Your task to perform on an android device: choose inbox layout in the gmail app Image 0: 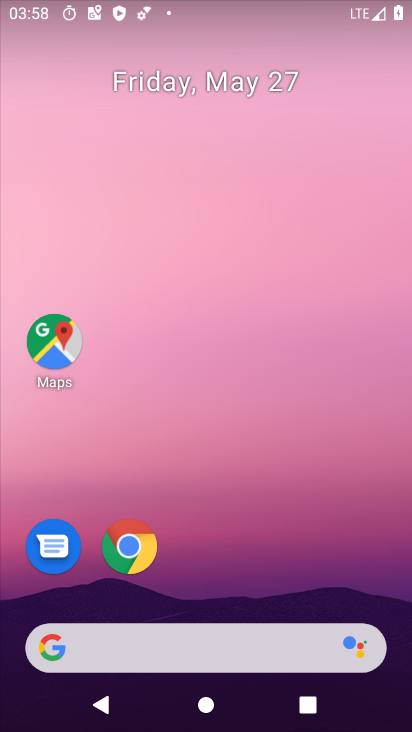
Step 0: drag from (402, 690) to (352, 243)
Your task to perform on an android device: choose inbox layout in the gmail app Image 1: 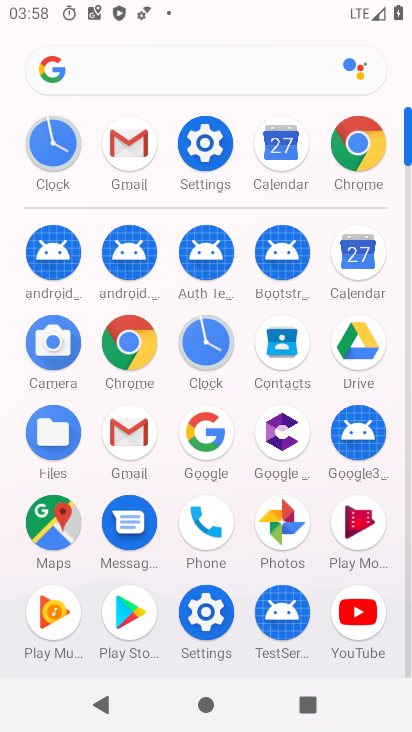
Step 1: click (115, 442)
Your task to perform on an android device: choose inbox layout in the gmail app Image 2: 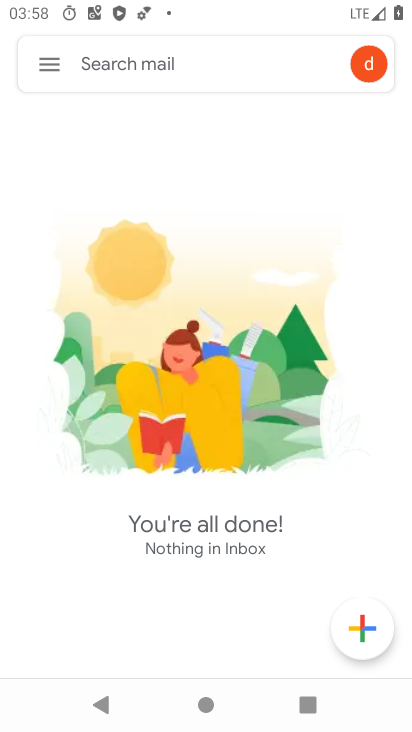
Step 2: click (45, 54)
Your task to perform on an android device: choose inbox layout in the gmail app Image 3: 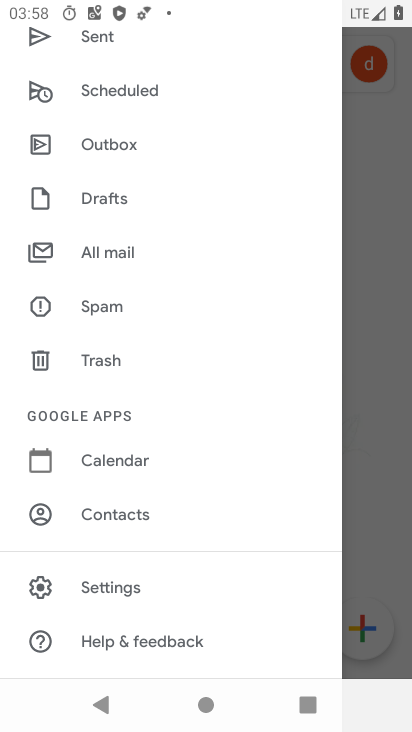
Step 3: click (106, 587)
Your task to perform on an android device: choose inbox layout in the gmail app Image 4: 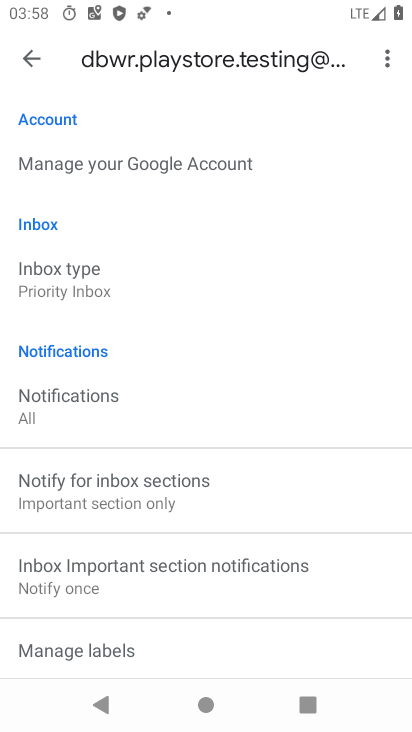
Step 4: click (52, 279)
Your task to perform on an android device: choose inbox layout in the gmail app Image 5: 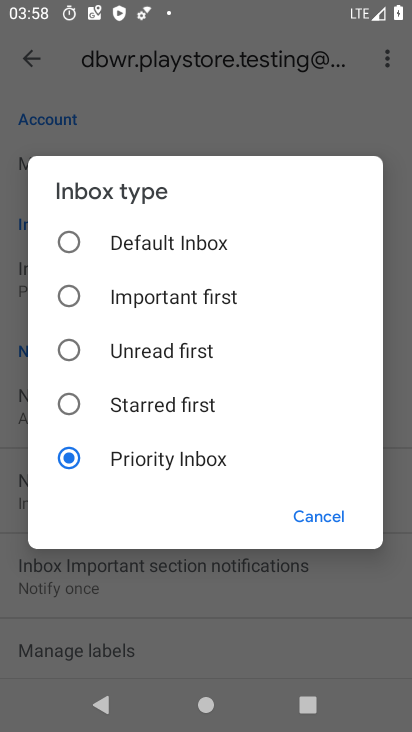
Step 5: click (66, 243)
Your task to perform on an android device: choose inbox layout in the gmail app Image 6: 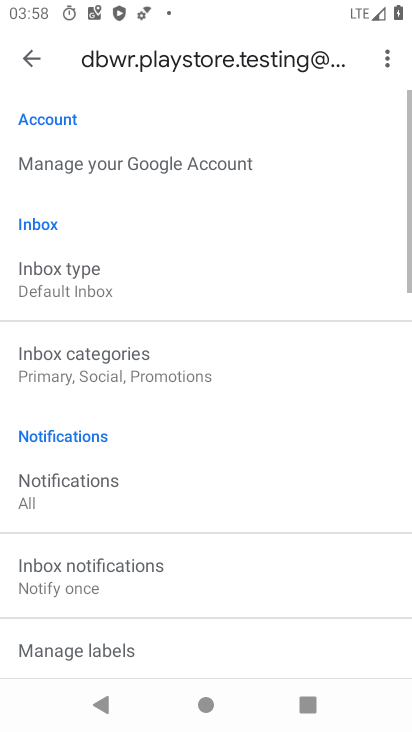
Step 6: task complete